Your task to perform on an android device: turn on the 12-hour format for clock Image 0: 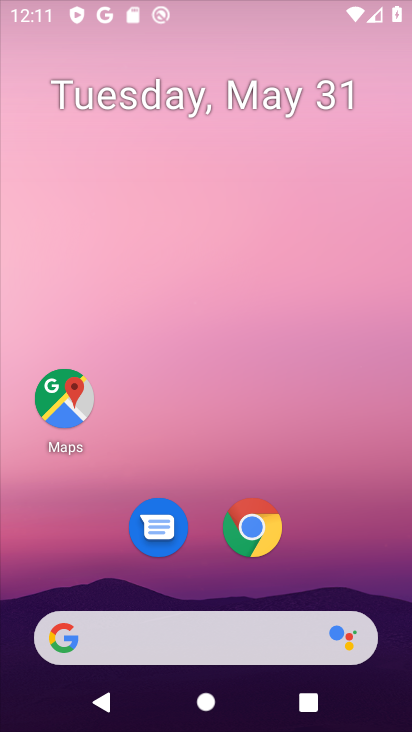
Step 0: press back button
Your task to perform on an android device: turn on the 12-hour format for clock Image 1: 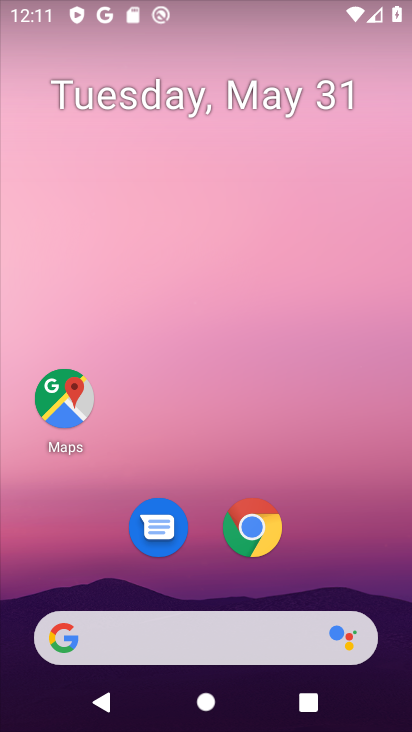
Step 1: drag from (256, 688) to (134, 105)
Your task to perform on an android device: turn on the 12-hour format for clock Image 2: 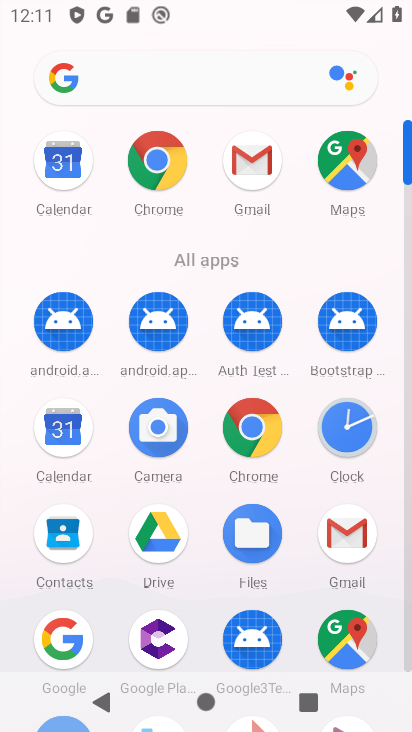
Step 2: click (335, 454)
Your task to perform on an android device: turn on the 12-hour format for clock Image 3: 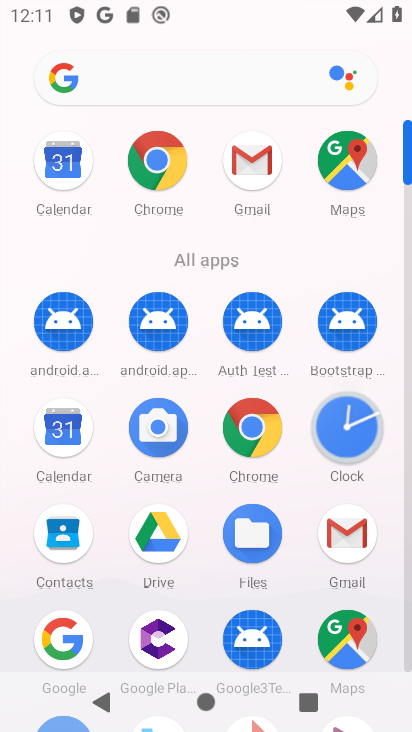
Step 3: click (344, 436)
Your task to perform on an android device: turn on the 12-hour format for clock Image 4: 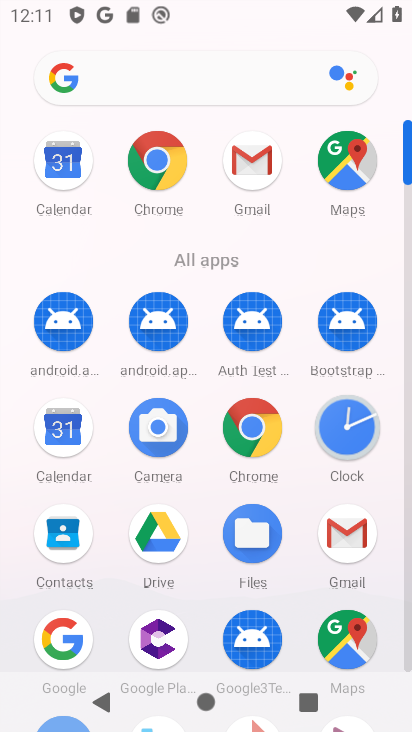
Step 4: click (344, 436)
Your task to perform on an android device: turn on the 12-hour format for clock Image 5: 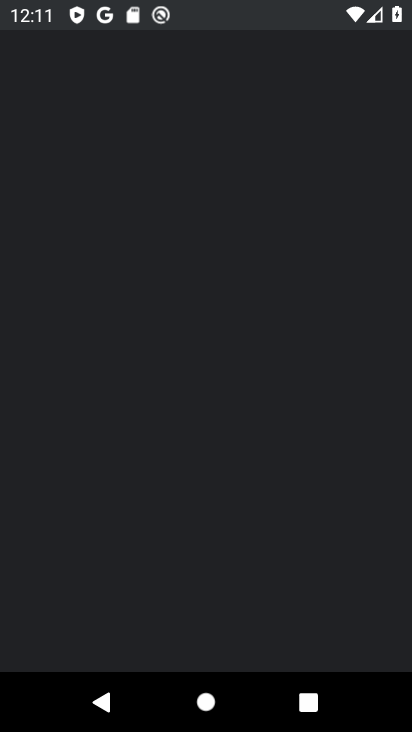
Step 5: click (345, 435)
Your task to perform on an android device: turn on the 12-hour format for clock Image 6: 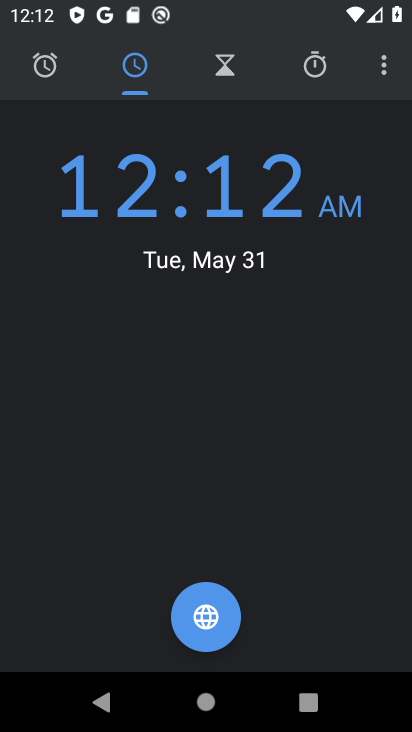
Step 6: click (384, 64)
Your task to perform on an android device: turn on the 12-hour format for clock Image 7: 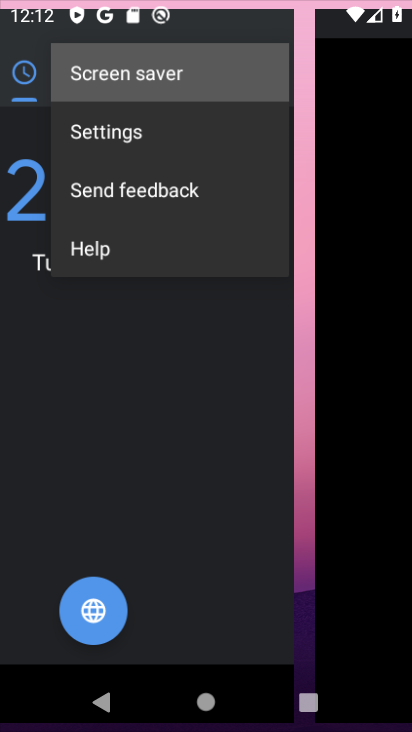
Step 7: click (228, 125)
Your task to perform on an android device: turn on the 12-hour format for clock Image 8: 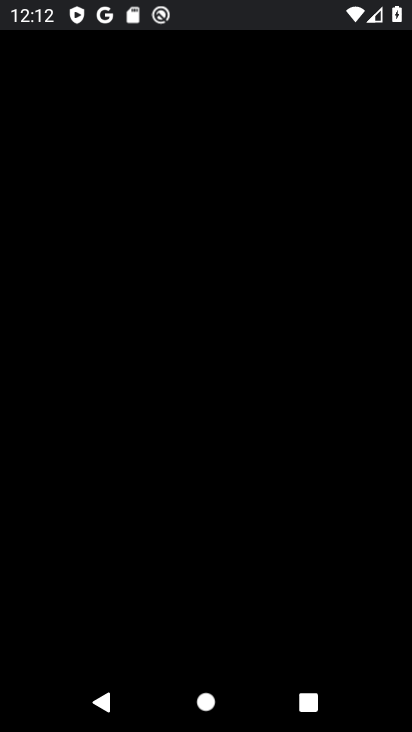
Step 8: click (228, 125)
Your task to perform on an android device: turn on the 12-hour format for clock Image 9: 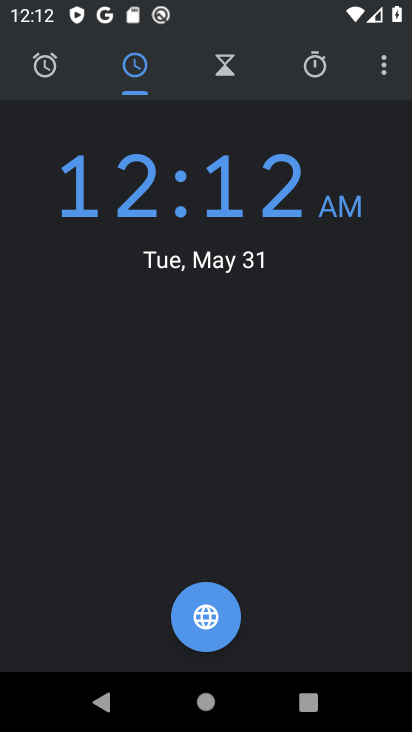
Step 9: click (387, 66)
Your task to perform on an android device: turn on the 12-hour format for clock Image 10: 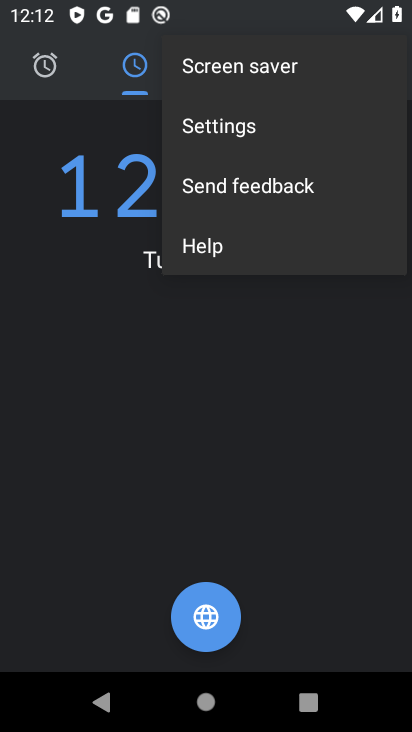
Step 10: click (230, 120)
Your task to perform on an android device: turn on the 12-hour format for clock Image 11: 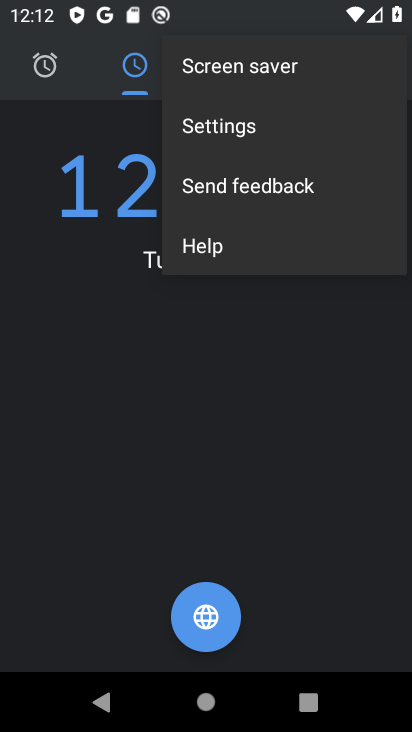
Step 11: click (234, 120)
Your task to perform on an android device: turn on the 12-hour format for clock Image 12: 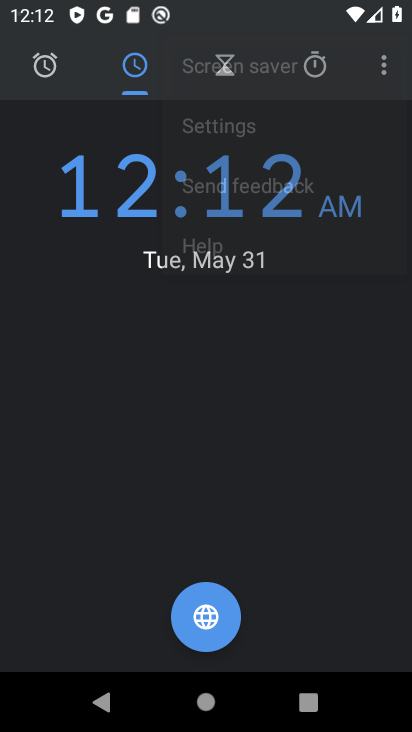
Step 12: click (234, 120)
Your task to perform on an android device: turn on the 12-hour format for clock Image 13: 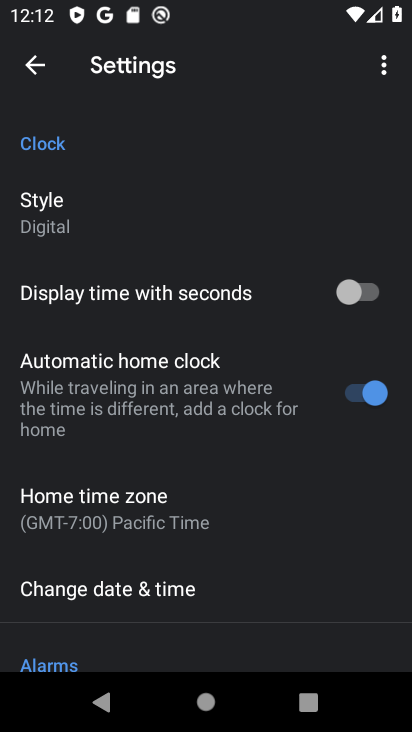
Step 13: click (97, 587)
Your task to perform on an android device: turn on the 12-hour format for clock Image 14: 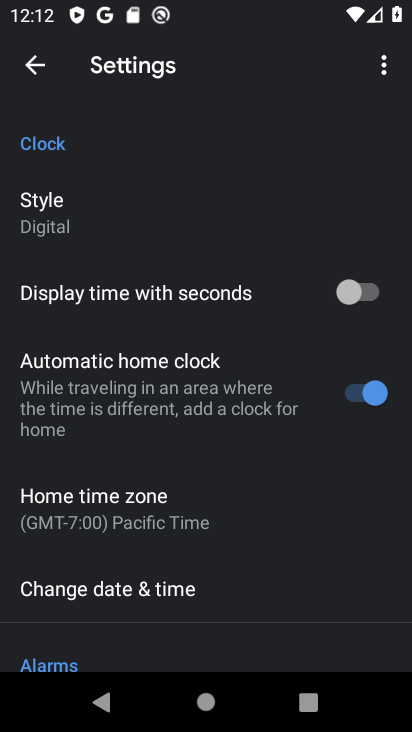
Step 14: click (96, 587)
Your task to perform on an android device: turn on the 12-hour format for clock Image 15: 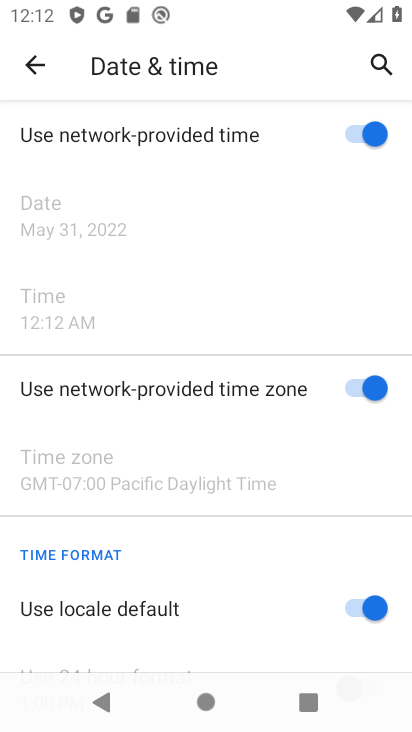
Step 15: task complete